Your task to perform on an android device: Search for Italian restaurants on Maps Image 0: 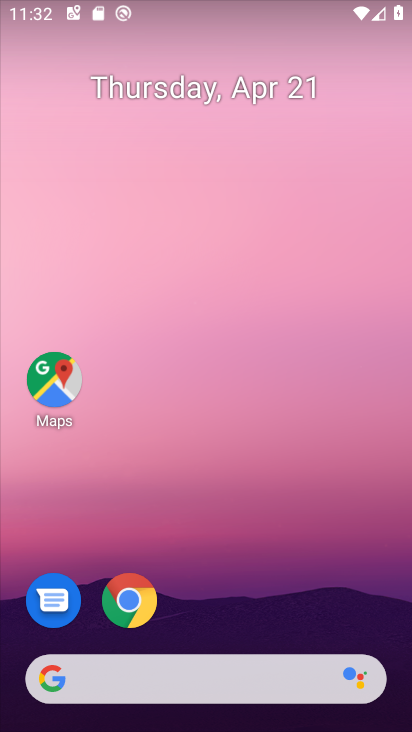
Step 0: click (57, 367)
Your task to perform on an android device: Search for Italian restaurants on Maps Image 1: 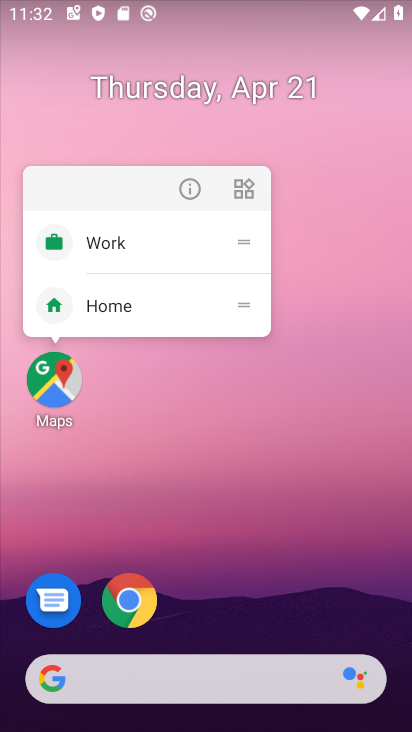
Step 1: click (52, 375)
Your task to perform on an android device: Search for Italian restaurants on Maps Image 2: 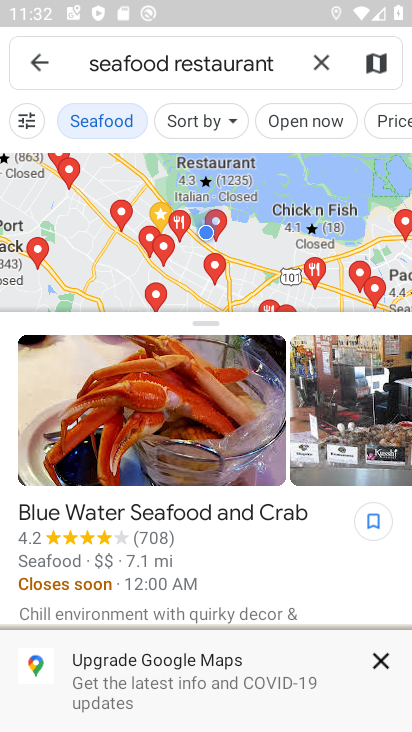
Step 2: click (135, 59)
Your task to perform on an android device: Search for Italian restaurants on Maps Image 3: 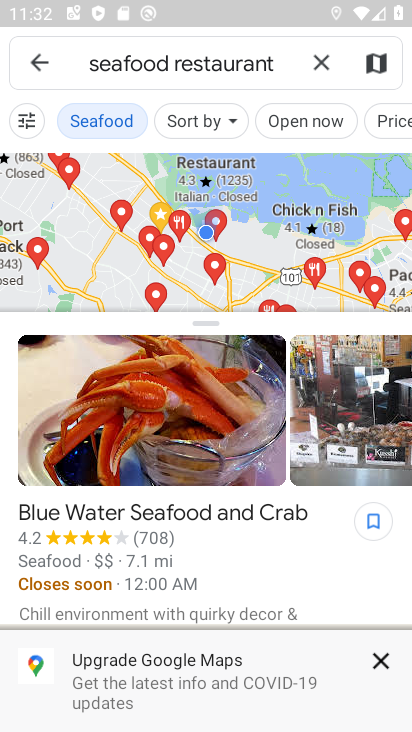
Step 3: click (135, 59)
Your task to perform on an android device: Search for Italian restaurants on Maps Image 4: 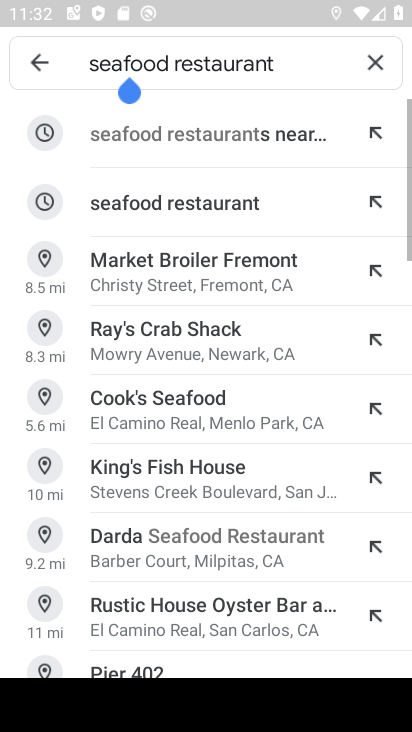
Step 4: click (132, 62)
Your task to perform on an android device: Search for Italian restaurants on Maps Image 5: 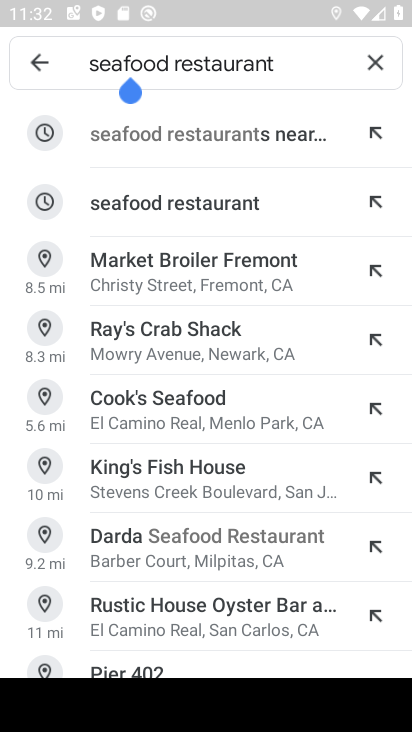
Step 5: click (375, 61)
Your task to perform on an android device: Search for Italian restaurants on Maps Image 6: 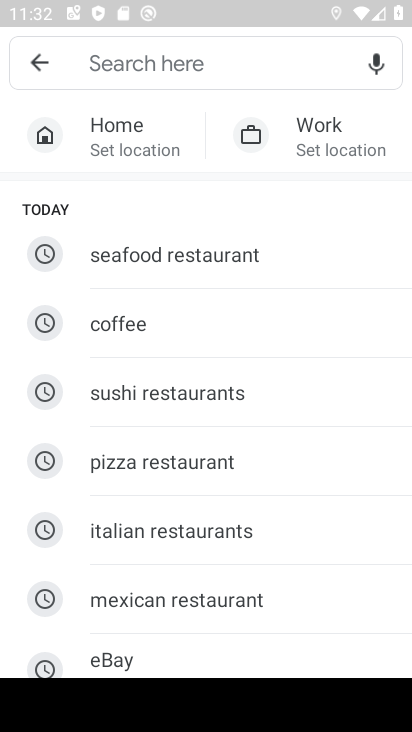
Step 6: type "italian restaurants"
Your task to perform on an android device: Search for Italian restaurants on Maps Image 7: 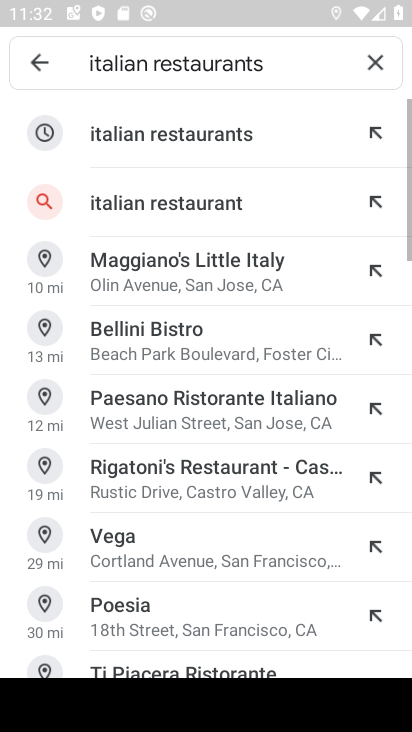
Step 7: click (167, 139)
Your task to perform on an android device: Search for Italian restaurants on Maps Image 8: 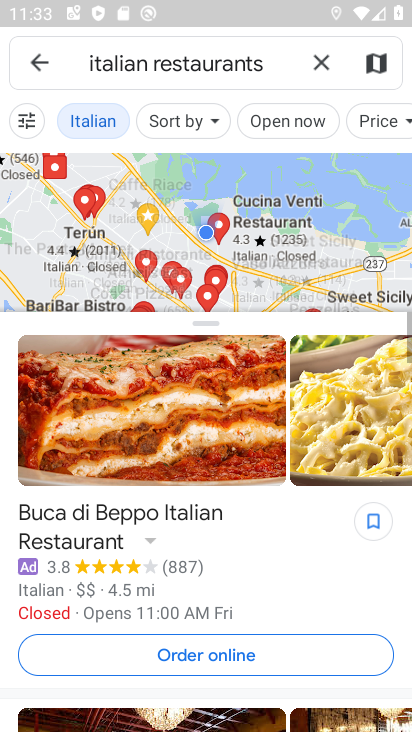
Step 8: task complete